Your task to perform on an android device: Open internet settings Image 0: 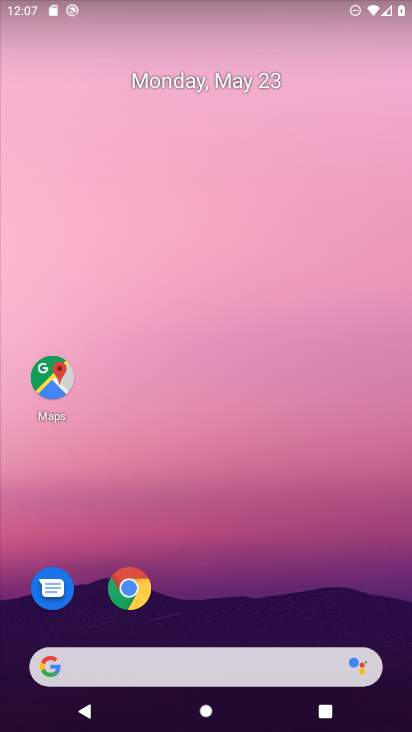
Step 0: drag from (240, 645) to (241, 207)
Your task to perform on an android device: Open internet settings Image 1: 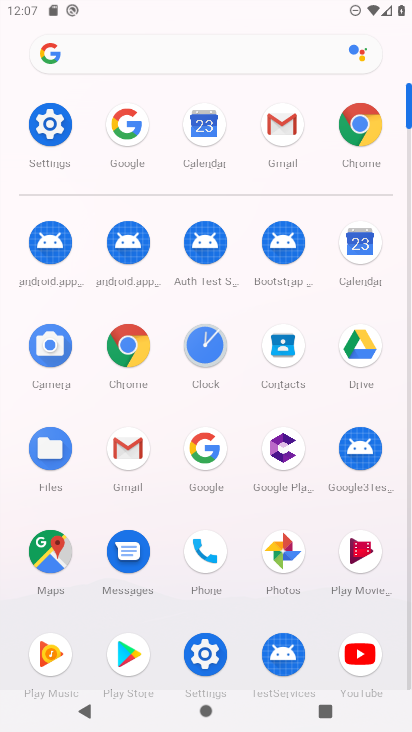
Step 1: click (46, 129)
Your task to perform on an android device: Open internet settings Image 2: 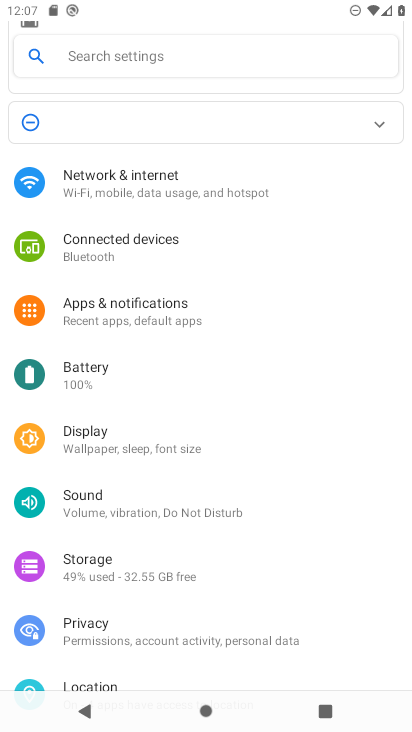
Step 2: click (129, 182)
Your task to perform on an android device: Open internet settings Image 3: 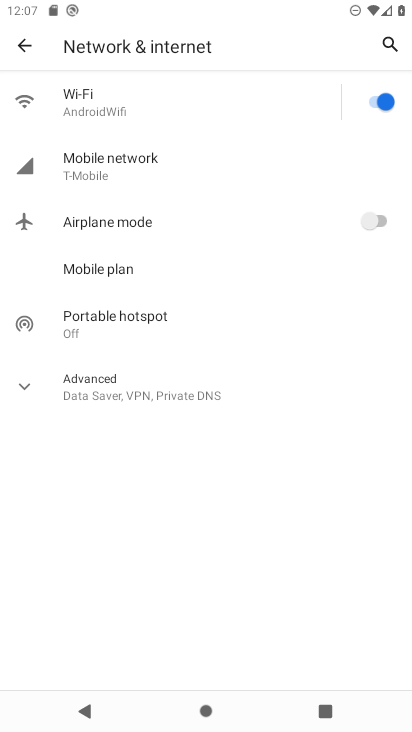
Step 3: click (129, 159)
Your task to perform on an android device: Open internet settings Image 4: 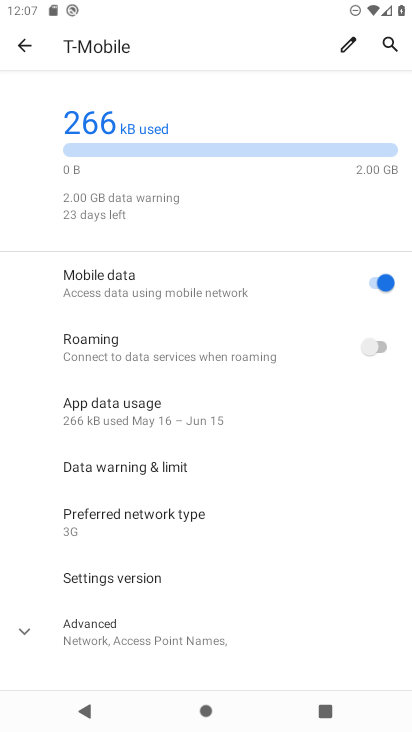
Step 4: click (132, 629)
Your task to perform on an android device: Open internet settings Image 5: 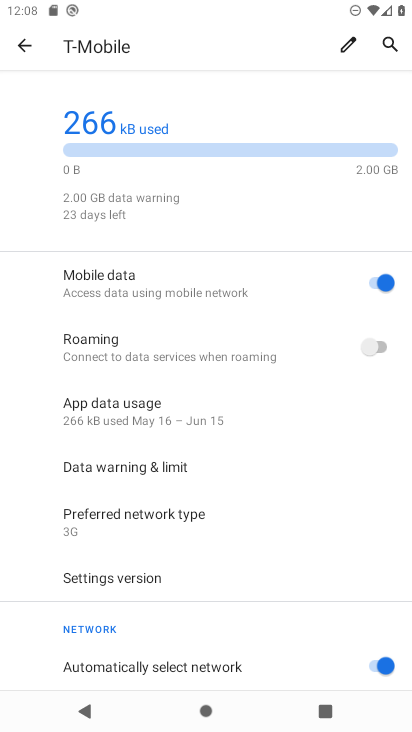
Step 5: task complete